Your task to perform on an android device: Show me popular videos on Youtube Image 0: 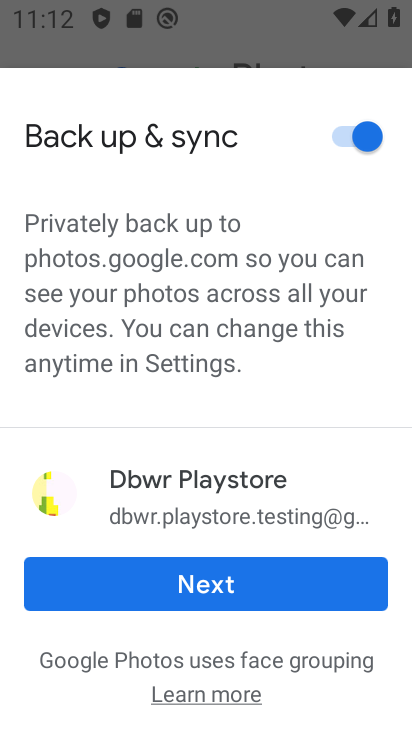
Step 0: press home button
Your task to perform on an android device: Show me popular videos on Youtube Image 1: 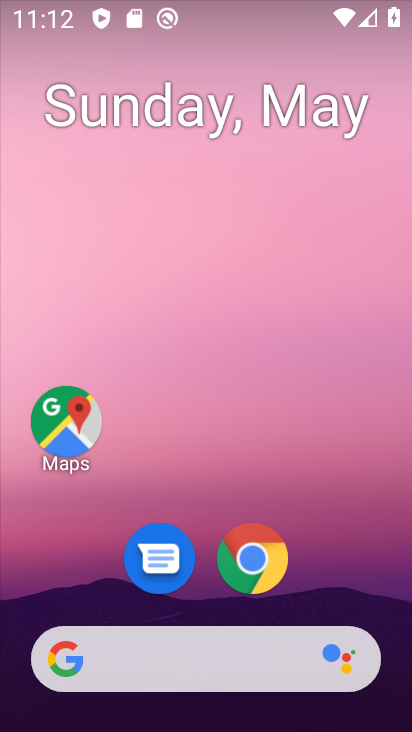
Step 1: drag from (362, 583) to (372, 251)
Your task to perform on an android device: Show me popular videos on Youtube Image 2: 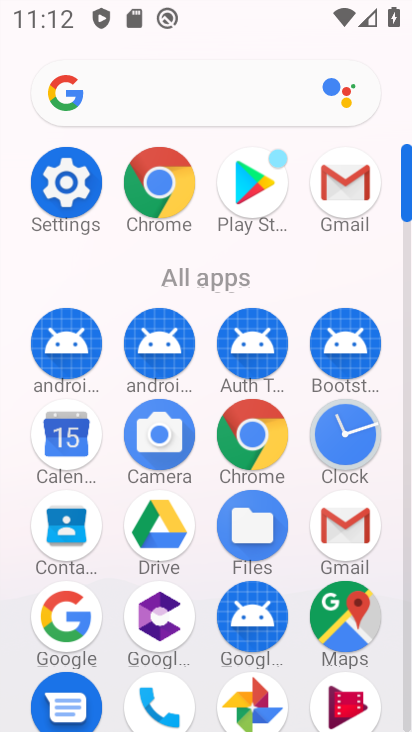
Step 2: drag from (395, 607) to (411, 260)
Your task to perform on an android device: Show me popular videos on Youtube Image 3: 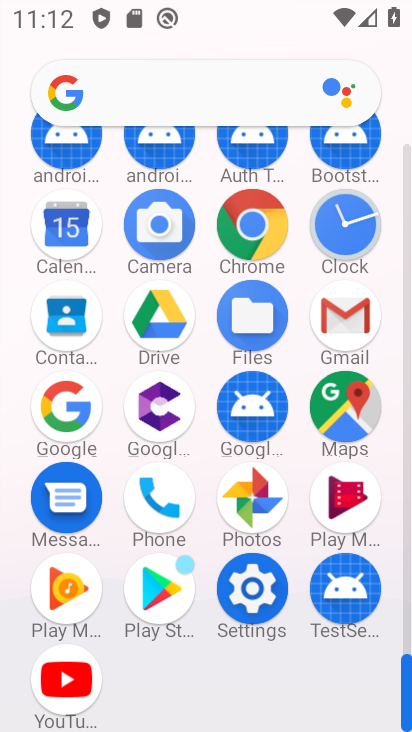
Step 3: click (69, 700)
Your task to perform on an android device: Show me popular videos on Youtube Image 4: 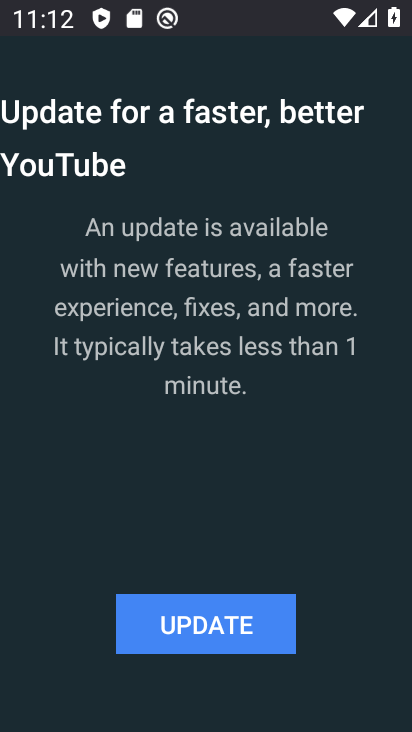
Step 4: click (251, 639)
Your task to perform on an android device: Show me popular videos on Youtube Image 5: 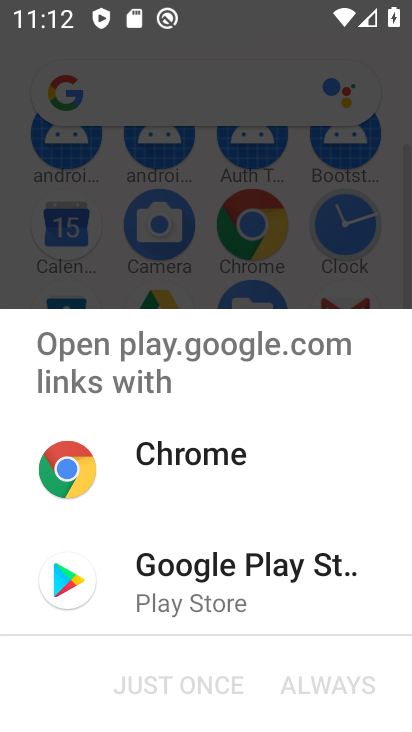
Step 5: click (213, 560)
Your task to perform on an android device: Show me popular videos on Youtube Image 6: 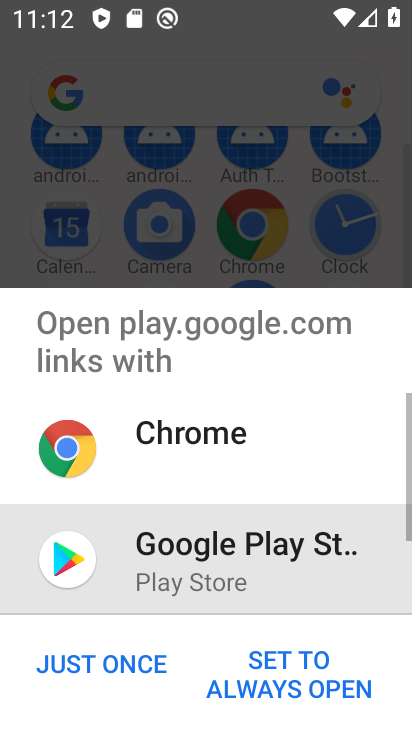
Step 6: click (120, 676)
Your task to perform on an android device: Show me popular videos on Youtube Image 7: 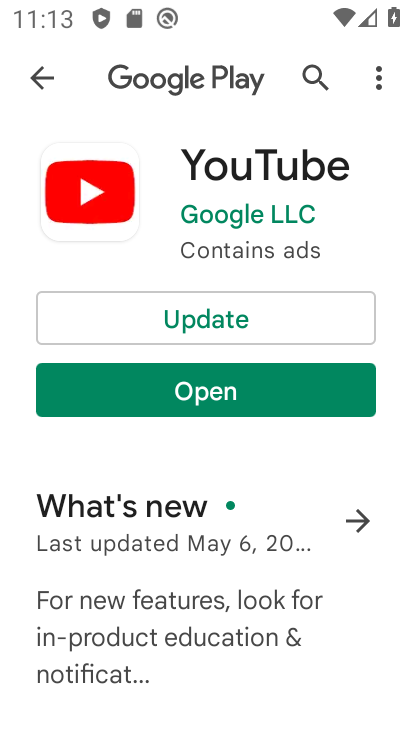
Step 7: click (251, 321)
Your task to perform on an android device: Show me popular videos on Youtube Image 8: 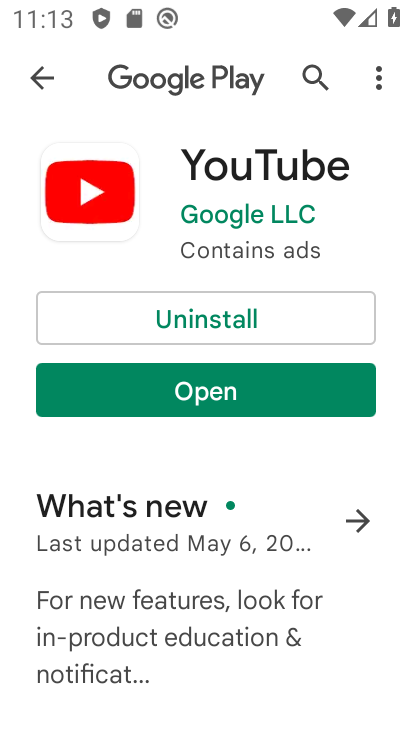
Step 8: click (173, 404)
Your task to perform on an android device: Show me popular videos on Youtube Image 9: 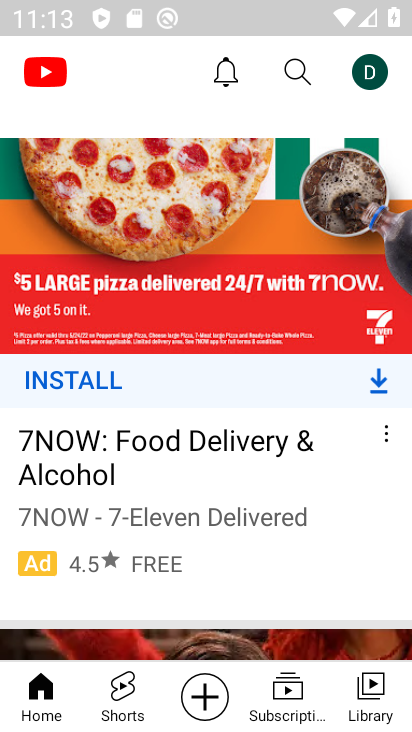
Step 9: task complete